Your task to perform on an android device: Open Google Maps Image 0: 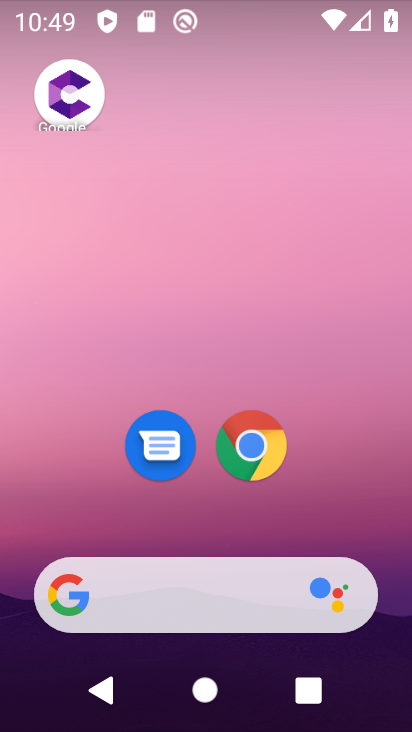
Step 0: drag from (217, 553) to (207, 159)
Your task to perform on an android device: Open Google Maps Image 1: 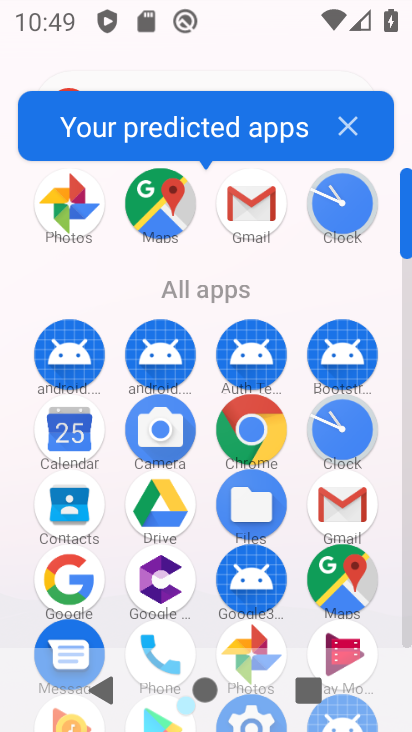
Step 1: click (164, 201)
Your task to perform on an android device: Open Google Maps Image 2: 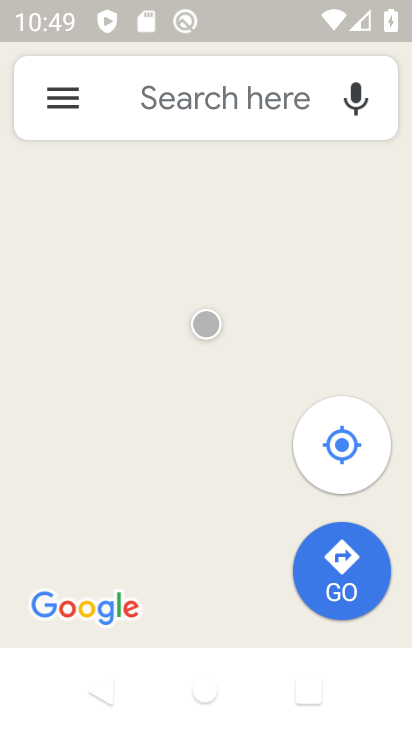
Step 2: task complete